Your task to perform on an android device: Open calendar and show me the second week of next month Image 0: 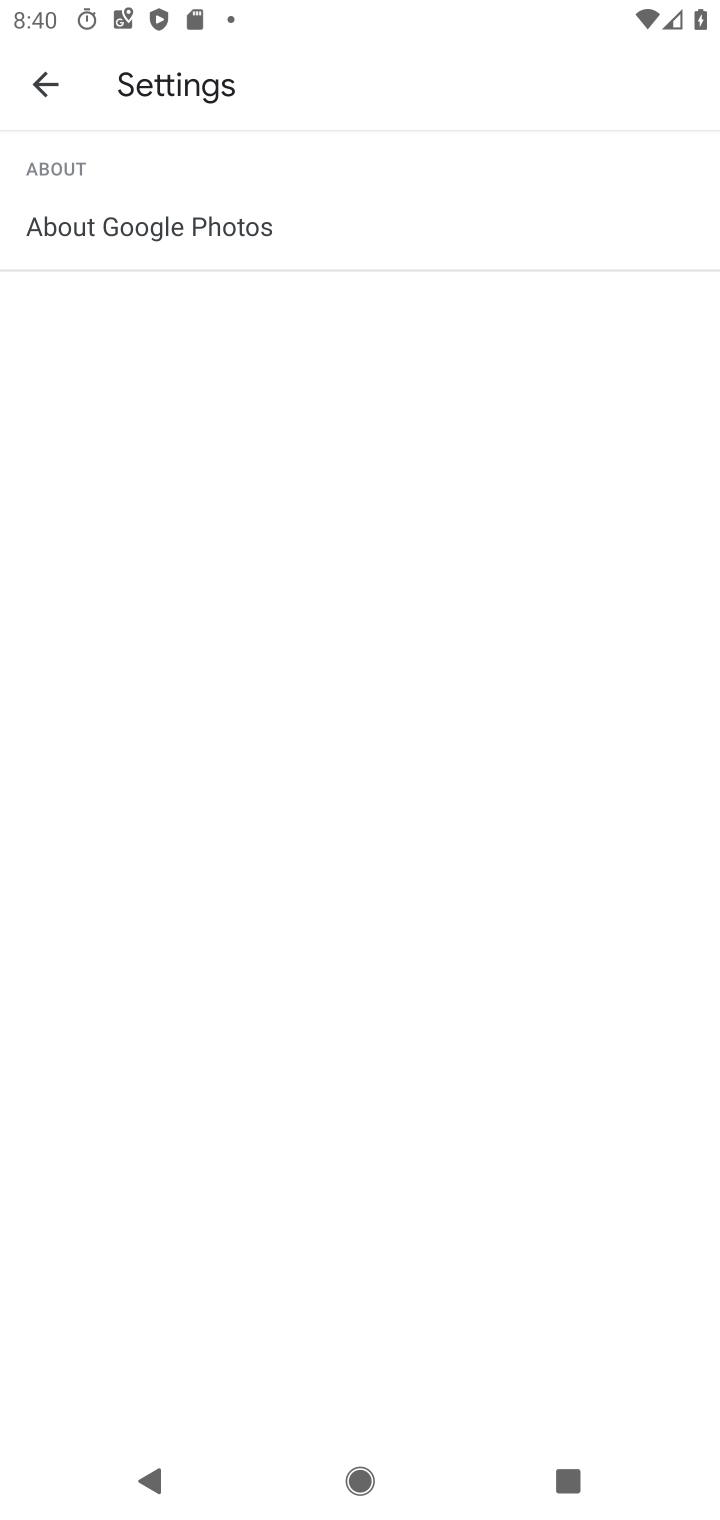
Step 0: press home button
Your task to perform on an android device: Open calendar and show me the second week of next month Image 1: 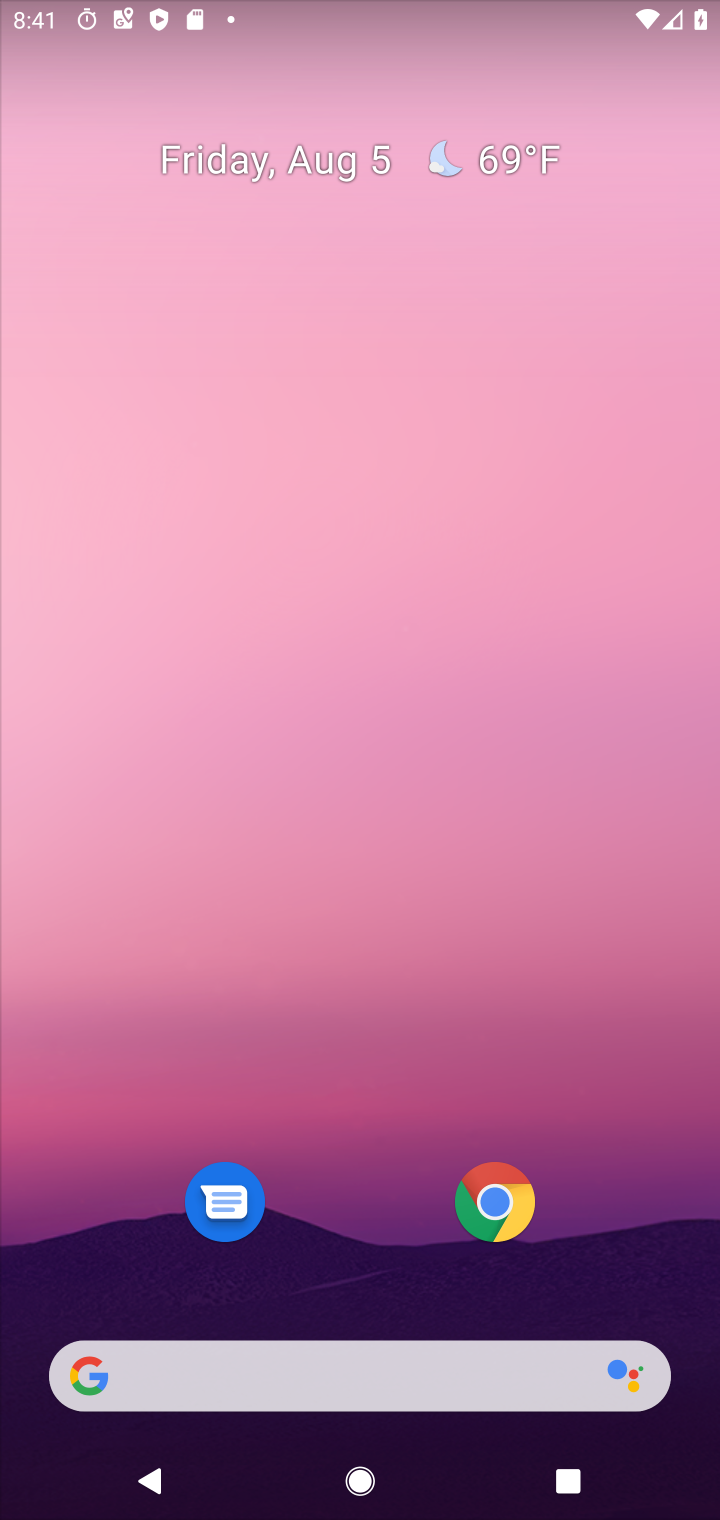
Step 1: drag from (349, 1196) to (446, 520)
Your task to perform on an android device: Open calendar and show me the second week of next month Image 2: 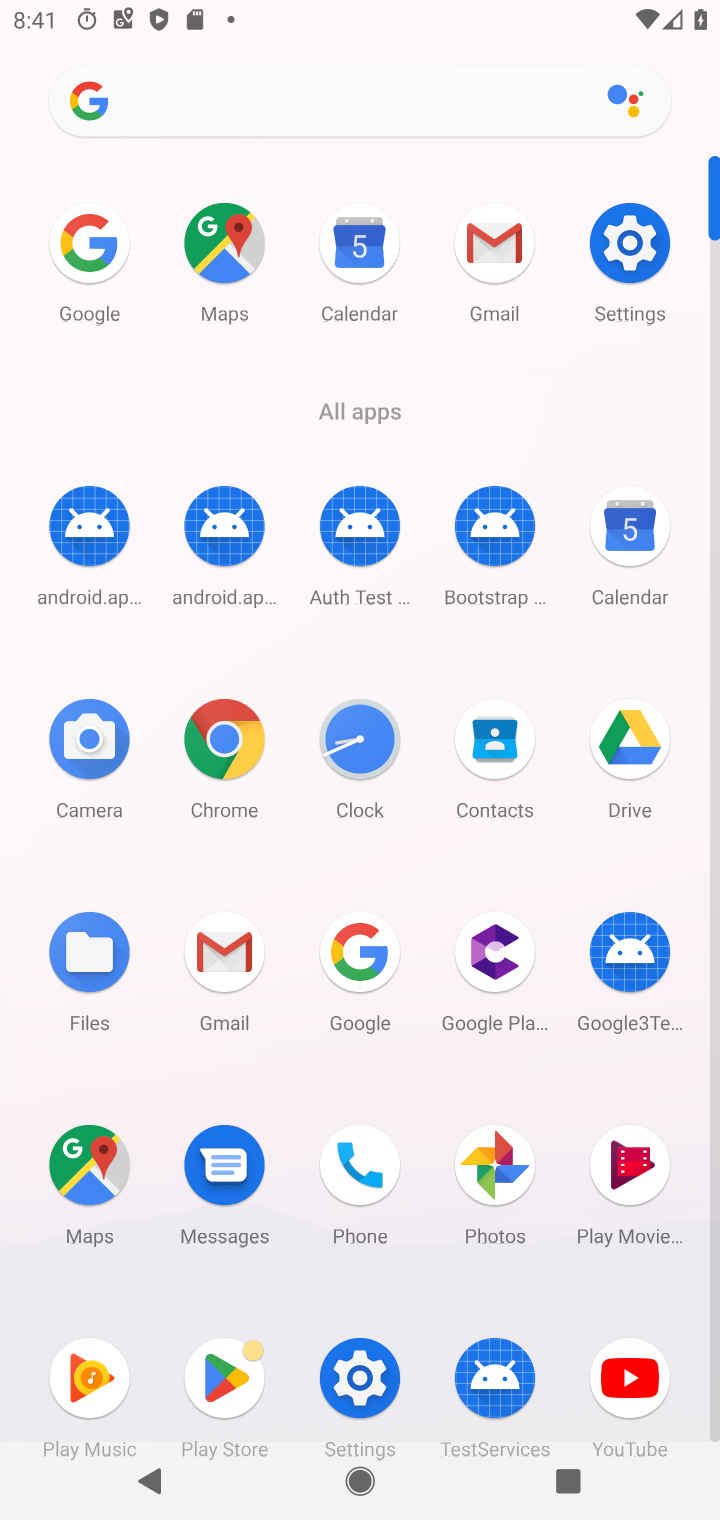
Step 2: click (632, 510)
Your task to perform on an android device: Open calendar and show me the second week of next month Image 3: 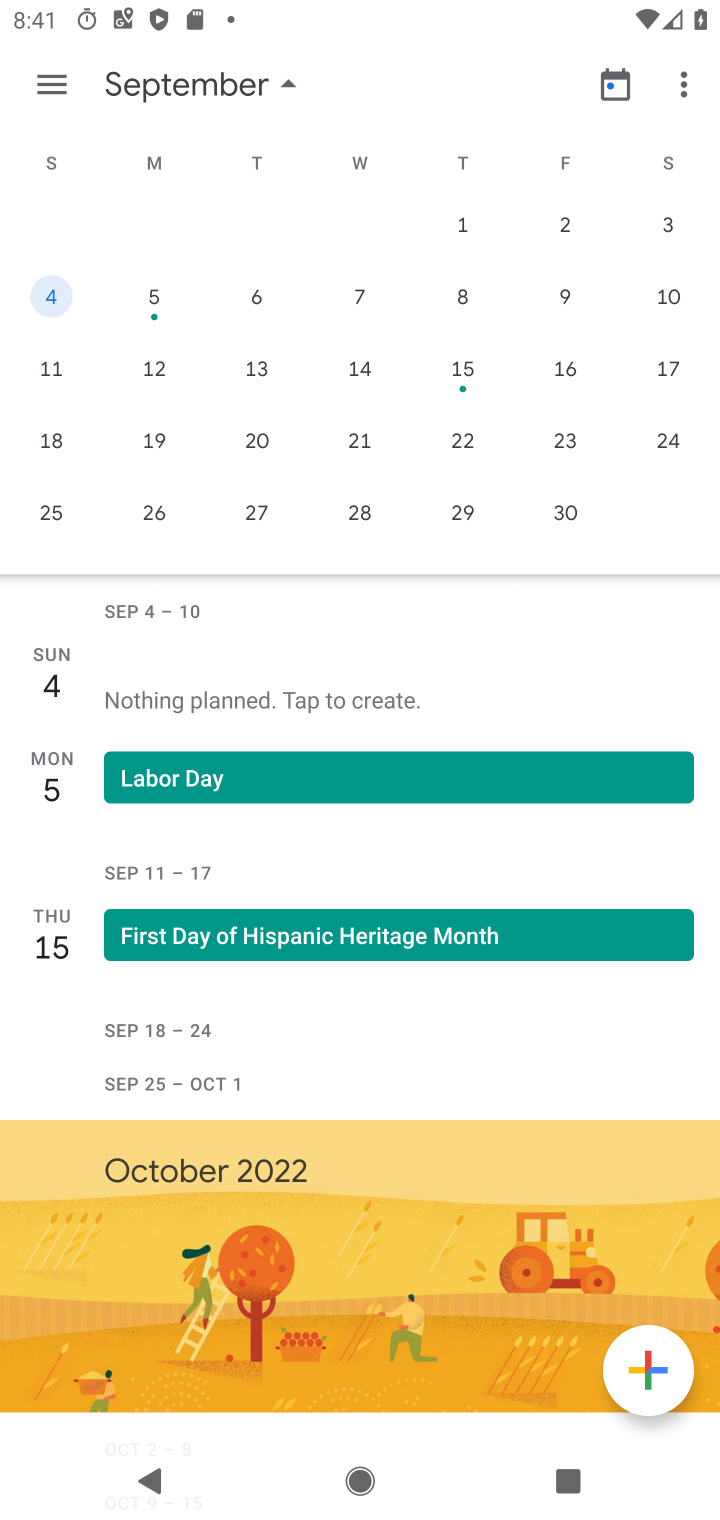
Step 3: task complete